Your task to perform on an android device: Toggle the flashlight Image 0: 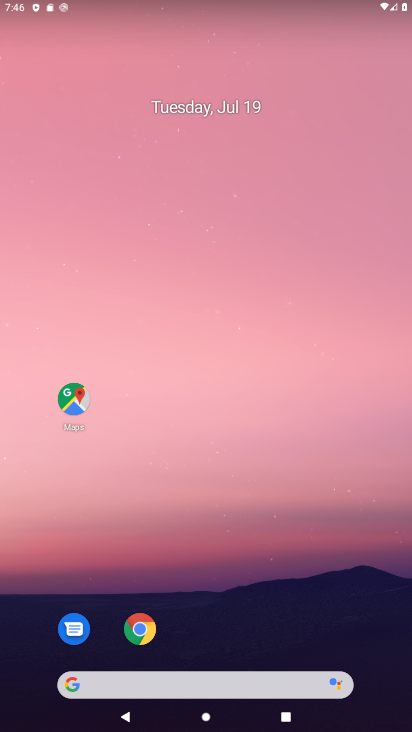
Step 0: drag from (221, 727) to (194, 82)
Your task to perform on an android device: Toggle the flashlight Image 1: 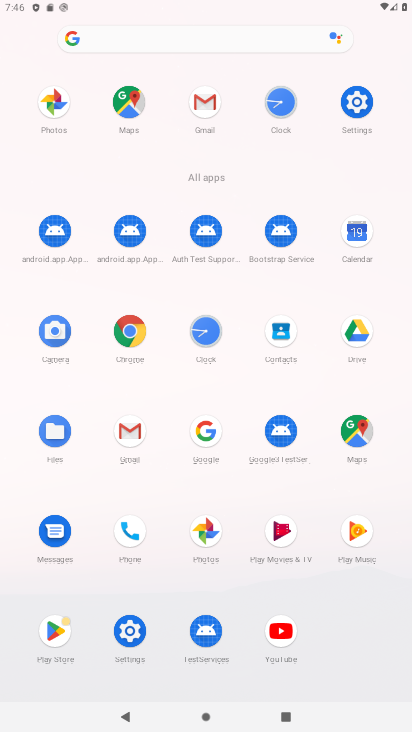
Step 1: click (359, 103)
Your task to perform on an android device: Toggle the flashlight Image 2: 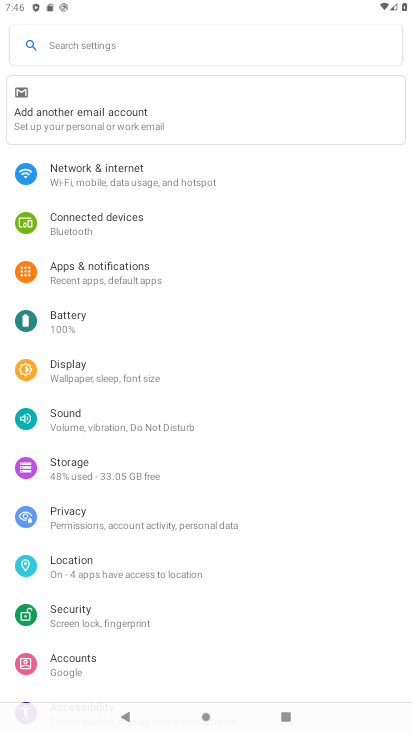
Step 2: task complete